Your task to perform on an android device: Clear all items from cart on bestbuy. Add "energizer triple a" to the cart on bestbuy Image 0: 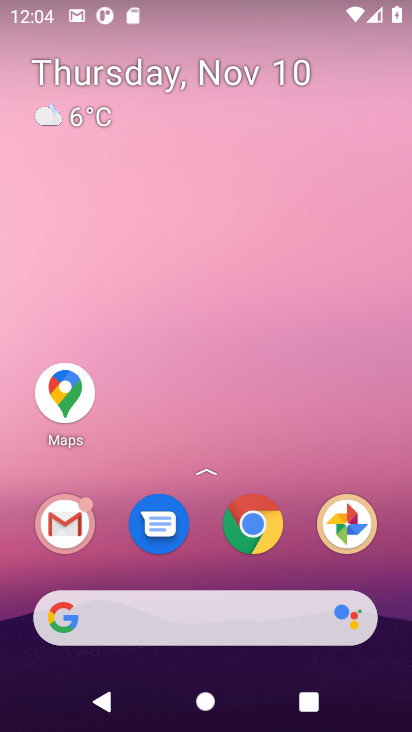
Step 0: click (259, 521)
Your task to perform on an android device: Clear all items from cart on bestbuy. Add "energizer triple a" to the cart on bestbuy Image 1: 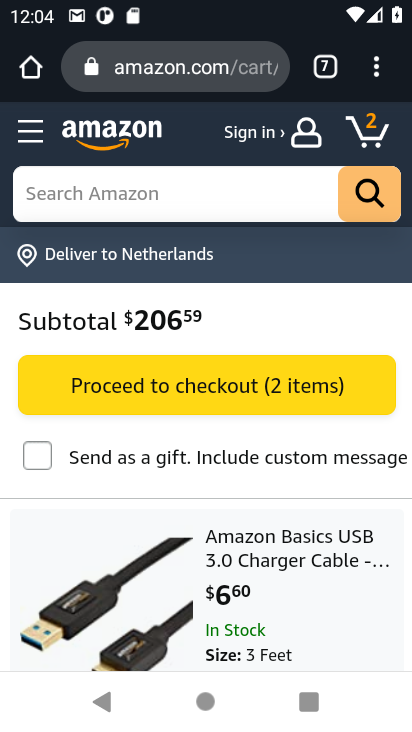
Step 1: click (330, 70)
Your task to perform on an android device: Clear all items from cart on bestbuy. Add "energizer triple a" to the cart on bestbuy Image 2: 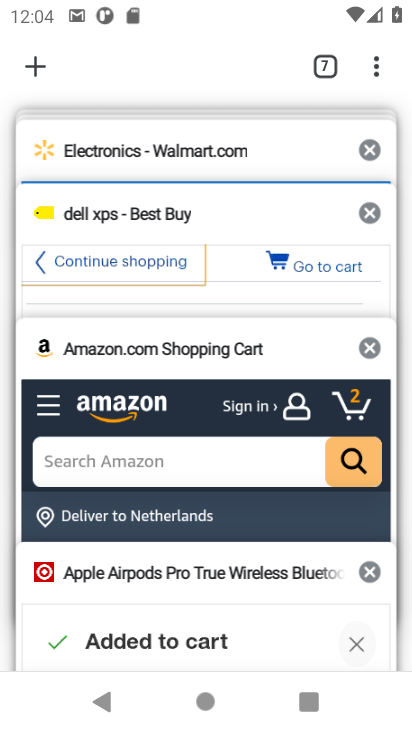
Step 2: click (212, 253)
Your task to perform on an android device: Clear all items from cart on bestbuy. Add "energizer triple a" to the cart on bestbuy Image 3: 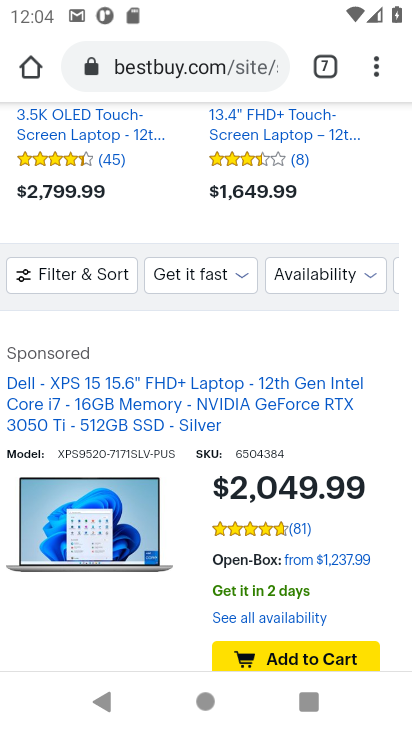
Step 3: drag from (328, 178) to (280, 577)
Your task to perform on an android device: Clear all items from cart on bestbuy. Add "energizer triple a" to the cart on bestbuy Image 4: 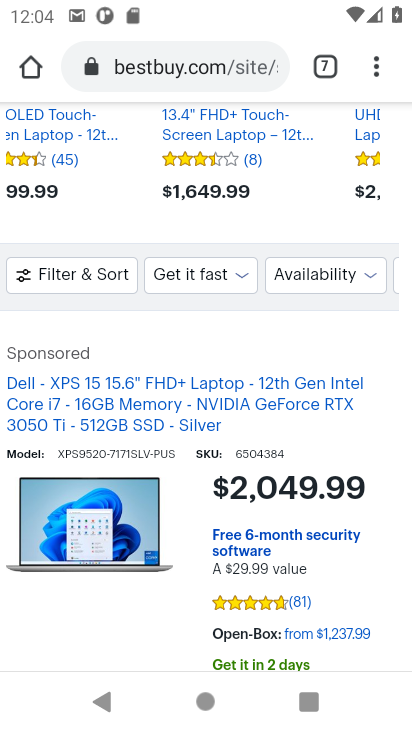
Step 4: drag from (317, 143) to (292, 597)
Your task to perform on an android device: Clear all items from cart on bestbuy. Add "energizer triple a" to the cart on bestbuy Image 5: 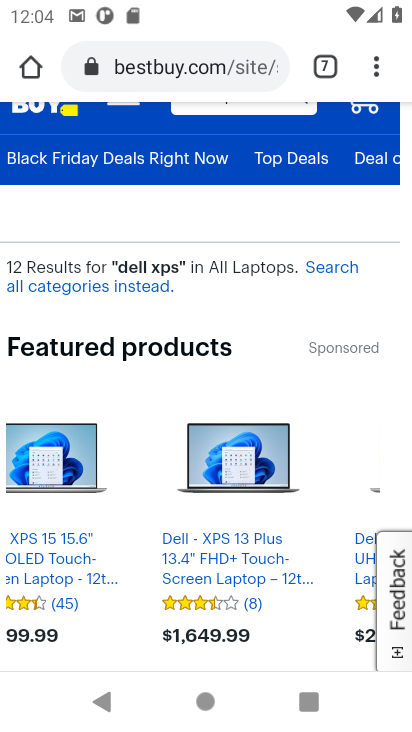
Step 5: drag from (314, 238) to (286, 654)
Your task to perform on an android device: Clear all items from cart on bestbuy. Add "energizer triple a" to the cart on bestbuy Image 6: 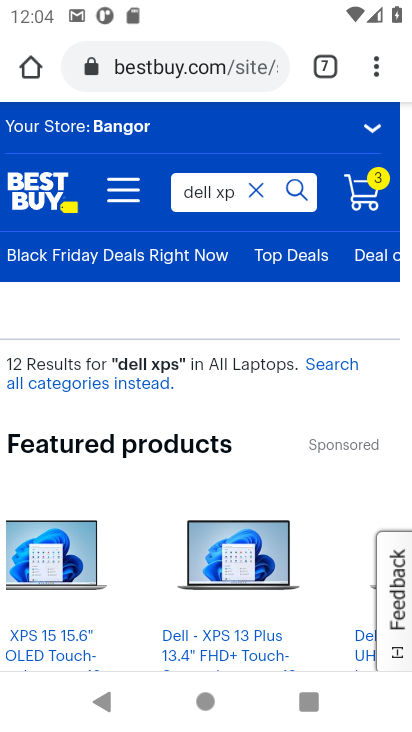
Step 6: click (256, 189)
Your task to perform on an android device: Clear all items from cart on bestbuy. Add "energizer triple a" to the cart on bestbuy Image 7: 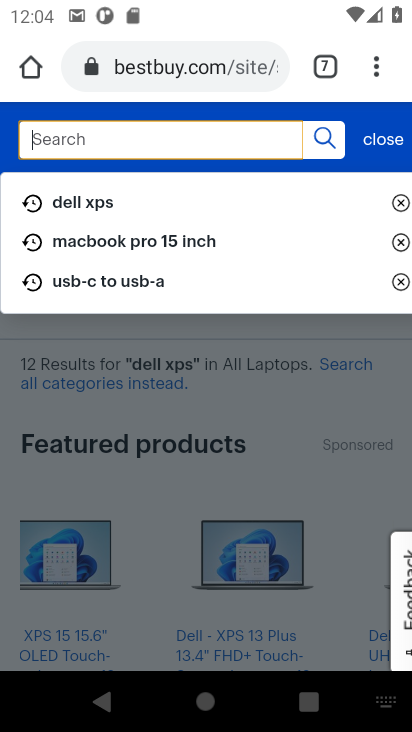
Step 7: type "energizer triple a"
Your task to perform on an android device: Clear all items from cart on bestbuy. Add "energizer triple a" to the cart on bestbuy Image 8: 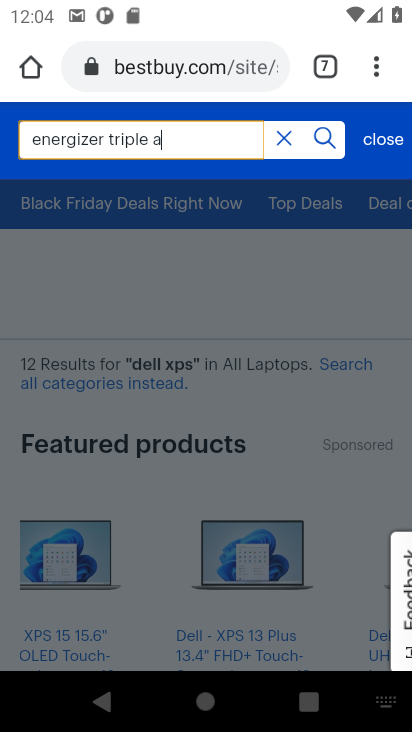
Step 8: click (321, 140)
Your task to perform on an android device: Clear all items from cart on bestbuy. Add "energizer triple a" to the cart on bestbuy Image 9: 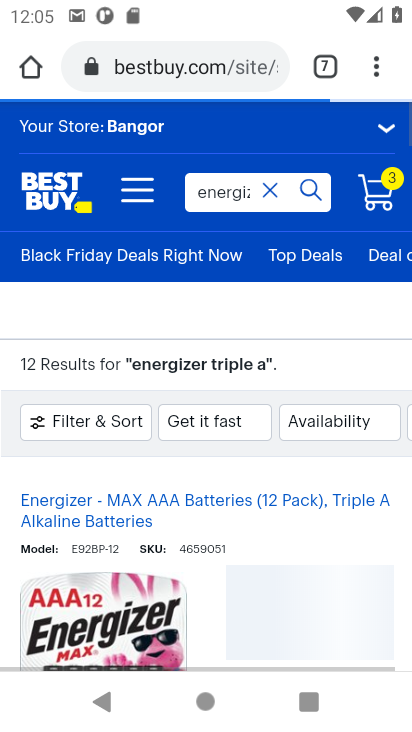
Step 9: drag from (248, 624) to (305, 355)
Your task to perform on an android device: Clear all items from cart on bestbuy. Add "energizer triple a" to the cart on bestbuy Image 10: 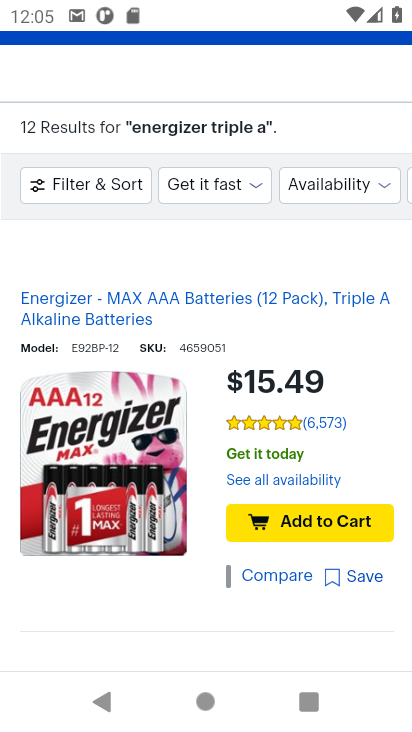
Step 10: click (306, 514)
Your task to perform on an android device: Clear all items from cart on bestbuy. Add "energizer triple a" to the cart on bestbuy Image 11: 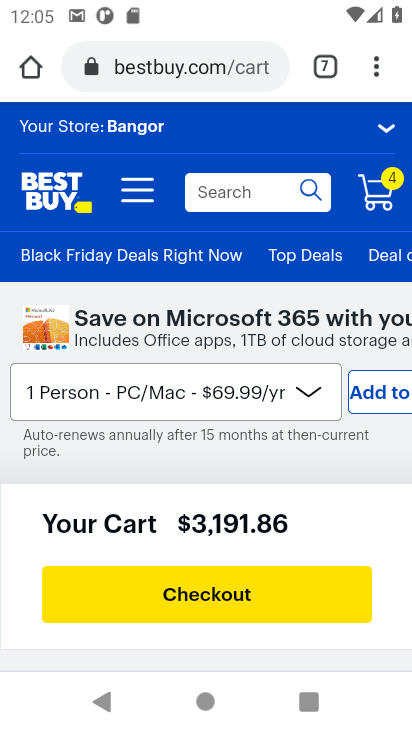
Step 11: click (385, 176)
Your task to perform on an android device: Clear all items from cart on bestbuy. Add "energizer triple a" to the cart on bestbuy Image 12: 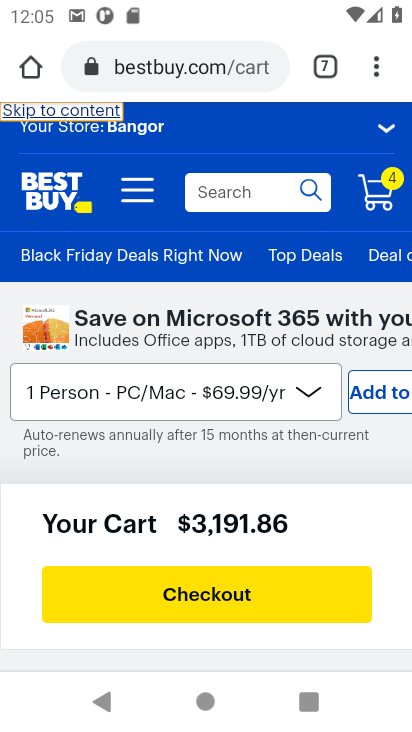
Step 12: drag from (258, 475) to (365, 518)
Your task to perform on an android device: Clear all items from cart on bestbuy. Add "energizer triple a" to the cart on bestbuy Image 13: 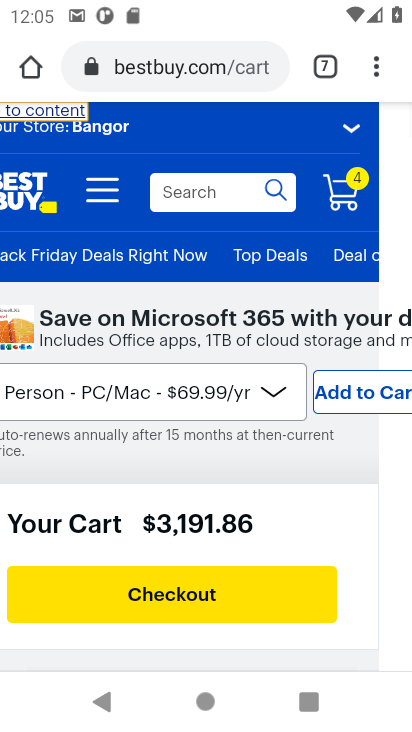
Step 13: drag from (92, 521) to (251, 173)
Your task to perform on an android device: Clear all items from cart on bestbuy. Add "energizer triple a" to the cart on bestbuy Image 14: 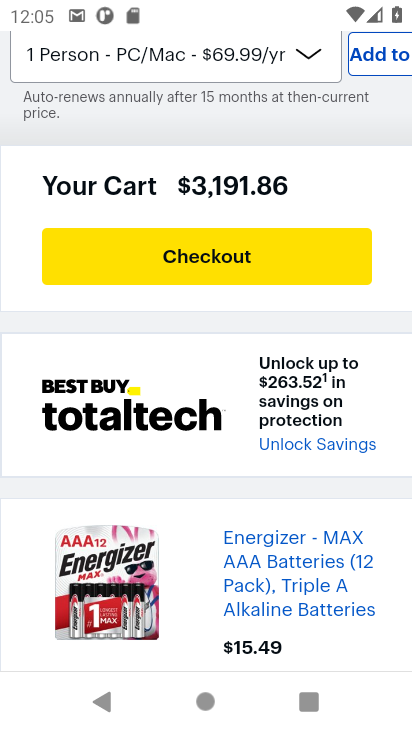
Step 14: drag from (194, 534) to (338, 201)
Your task to perform on an android device: Clear all items from cart on bestbuy. Add "energizer triple a" to the cart on bestbuy Image 15: 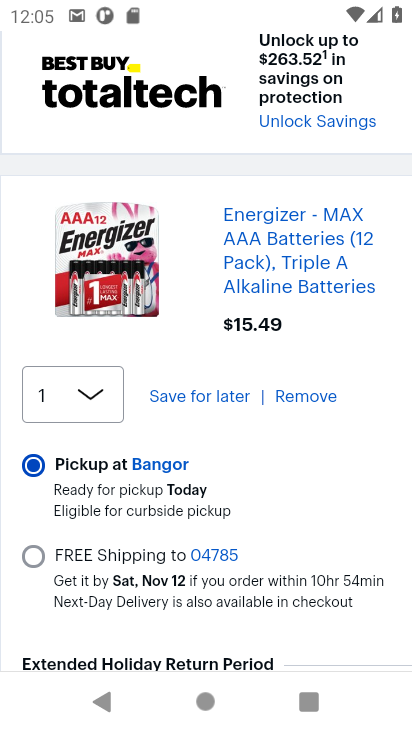
Step 15: drag from (274, 487) to (364, 124)
Your task to perform on an android device: Clear all items from cart on bestbuy. Add "energizer triple a" to the cart on bestbuy Image 16: 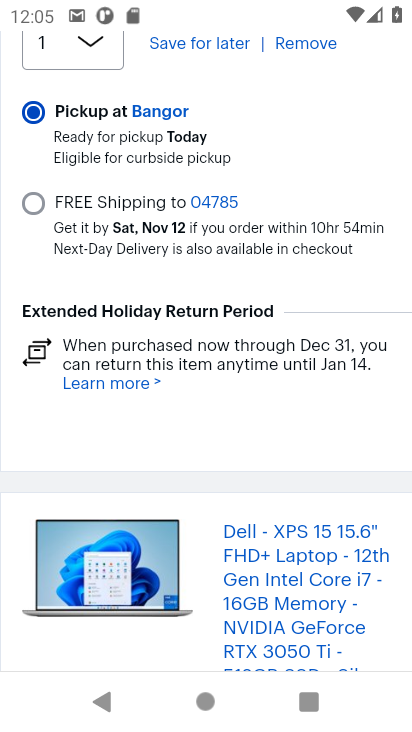
Step 16: drag from (289, 470) to (389, 198)
Your task to perform on an android device: Clear all items from cart on bestbuy. Add "energizer triple a" to the cart on bestbuy Image 17: 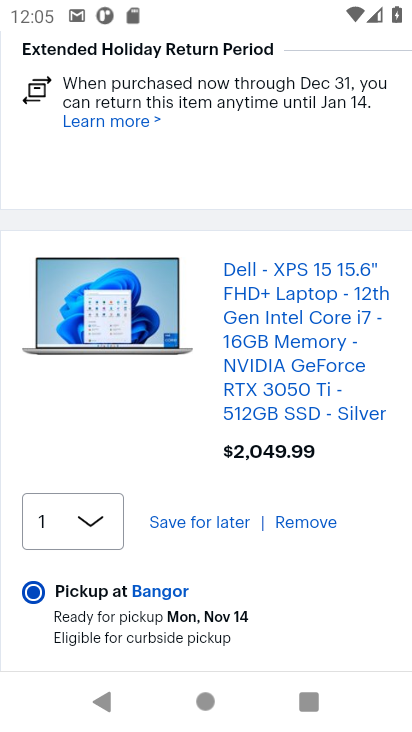
Step 17: click (314, 523)
Your task to perform on an android device: Clear all items from cart on bestbuy. Add "energizer triple a" to the cart on bestbuy Image 18: 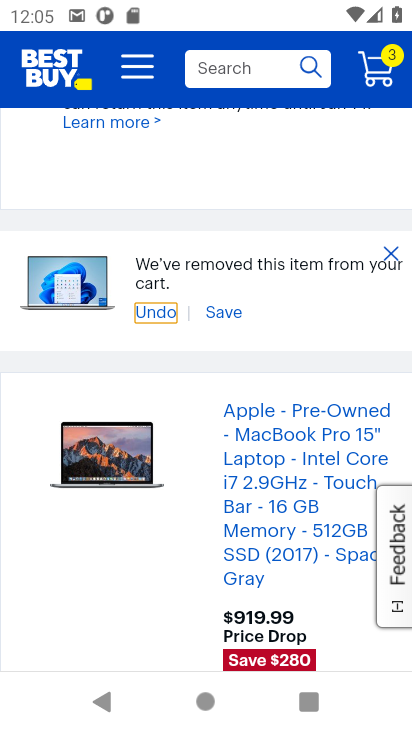
Step 18: click (311, 228)
Your task to perform on an android device: Clear all items from cart on bestbuy. Add "energizer triple a" to the cart on bestbuy Image 19: 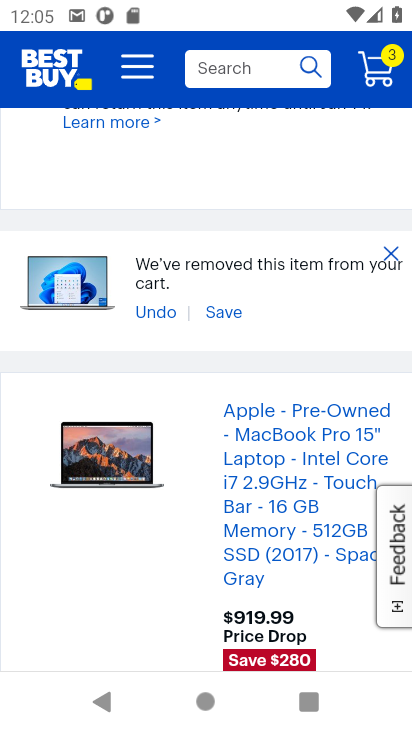
Step 19: drag from (187, 571) to (357, 186)
Your task to perform on an android device: Clear all items from cart on bestbuy. Add "energizer triple a" to the cart on bestbuy Image 20: 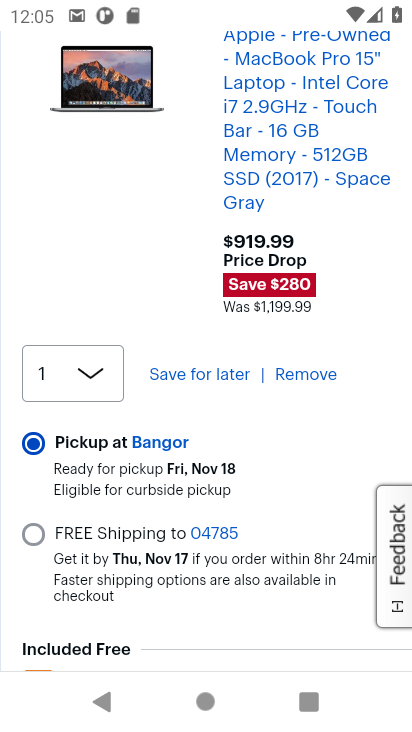
Step 20: click (292, 372)
Your task to perform on an android device: Clear all items from cart on bestbuy. Add "energizer triple a" to the cart on bestbuy Image 21: 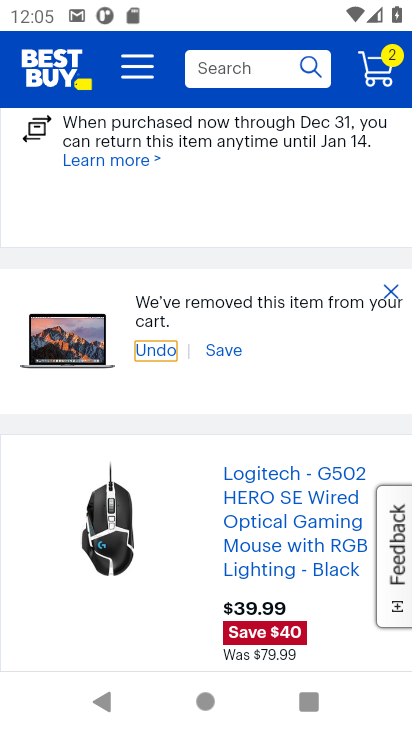
Step 21: drag from (185, 552) to (299, 159)
Your task to perform on an android device: Clear all items from cart on bestbuy. Add "energizer triple a" to the cart on bestbuy Image 22: 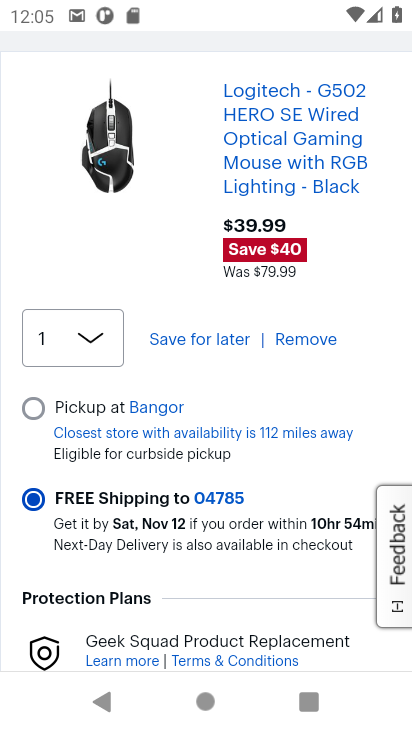
Step 22: click (299, 645)
Your task to perform on an android device: Clear all items from cart on bestbuy. Add "energizer triple a" to the cart on bestbuy Image 23: 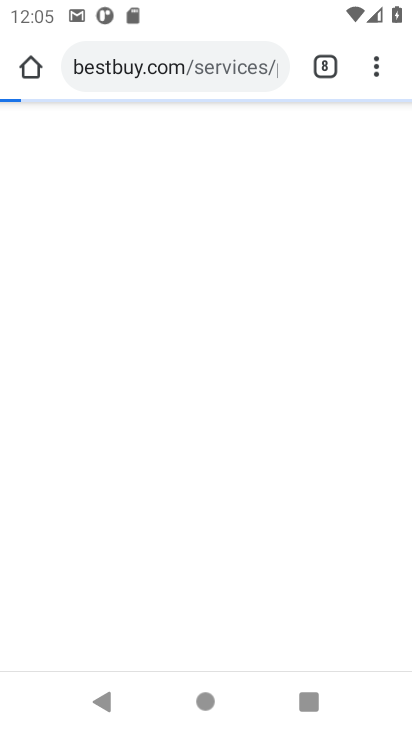
Step 23: press back button
Your task to perform on an android device: Clear all items from cart on bestbuy. Add "energizer triple a" to the cart on bestbuy Image 24: 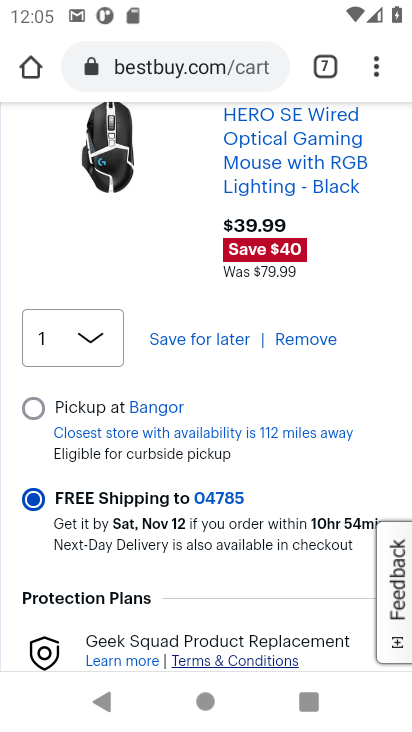
Step 24: click (305, 335)
Your task to perform on an android device: Clear all items from cart on bestbuy. Add "energizer triple a" to the cart on bestbuy Image 25: 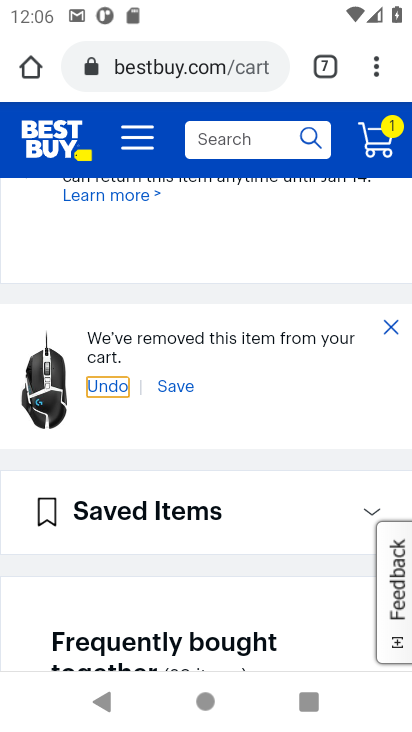
Step 25: task complete